Your task to perform on an android device: turn off translation in the chrome app Image 0: 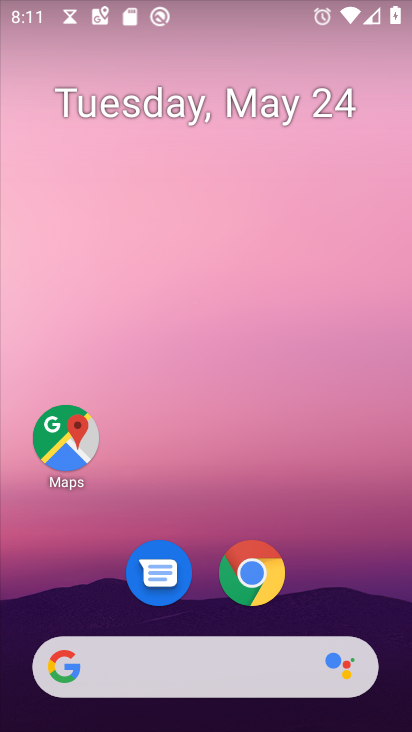
Step 0: drag from (332, 505) to (282, 46)
Your task to perform on an android device: turn off translation in the chrome app Image 1: 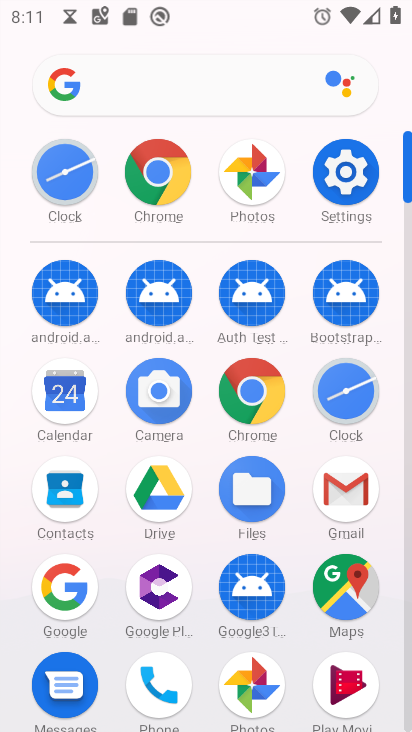
Step 1: click (157, 176)
Your task to perform on an android device: turn off translation in the chrome app Image 2: 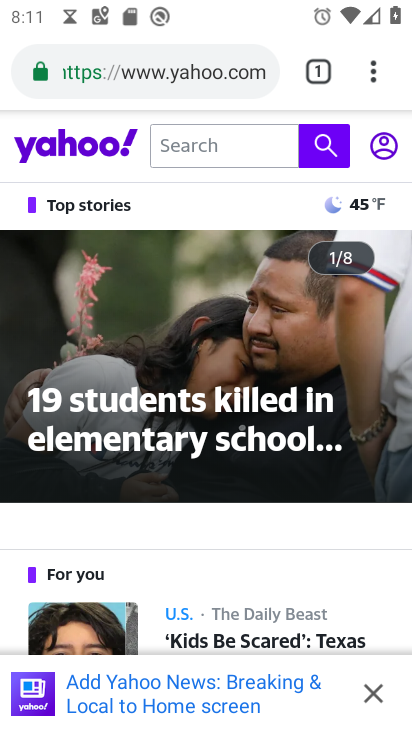
Step 2: drag from (393, 82) to (187, 568)
Your task to perform on an android device: turn off translation in the chrome app Image 3: 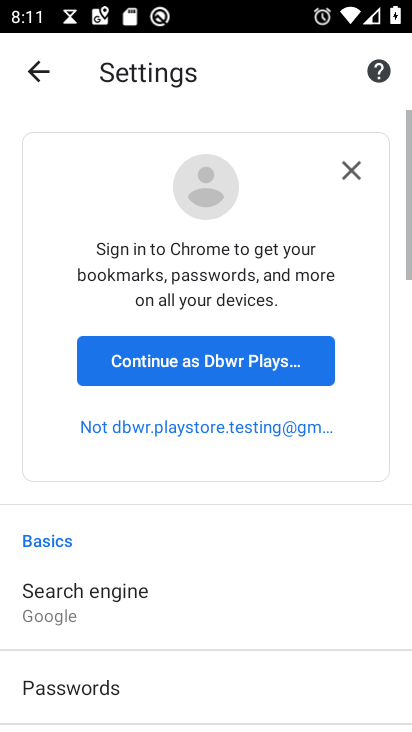
Step 3: drag from (196, 605) to (287, 208)
Your task to perform on an android device: turn off translation in the chrome app Image 4: 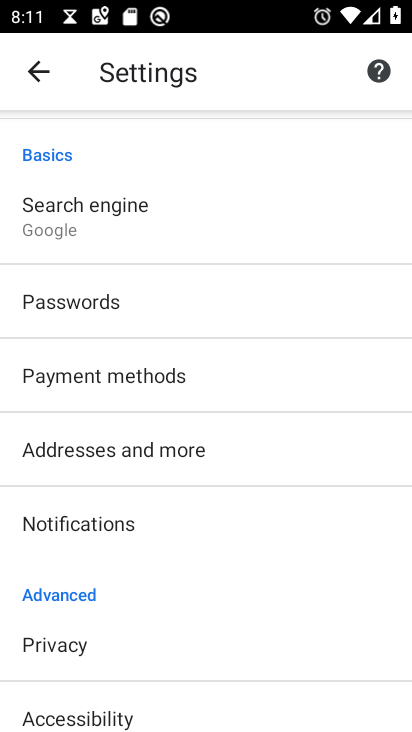
Step 4: drag from (180, 600) to (224, 133)
Your task to perform on an android device: turn off translation in the chrome app Image 5: 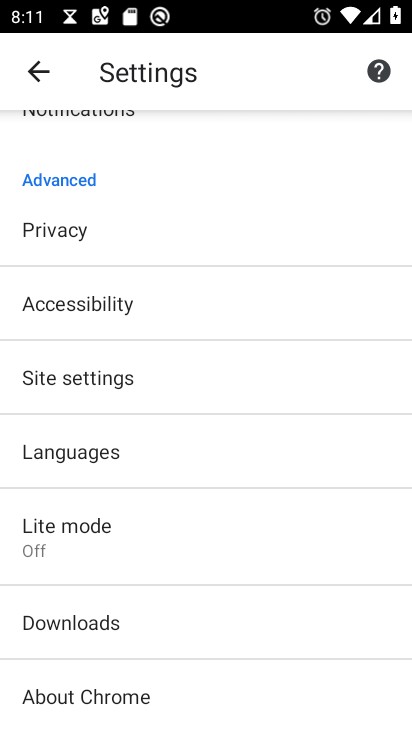
Step 5: click (173, 468)
Your task to perform on an android device: turn off translation in the chrome app Image 6: 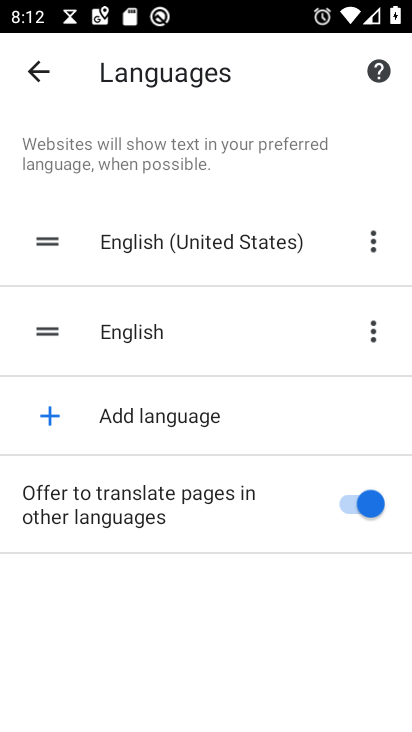
Step 6: click (351, 507)
Your task to perform on an android device: turn off translation in the chrome app Image 7: 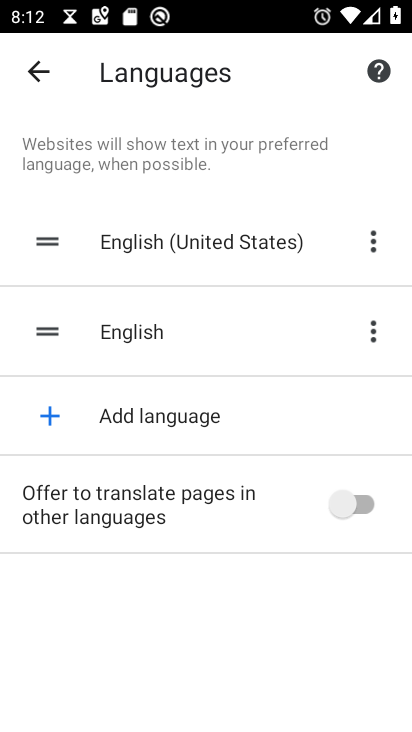
Step 7: task complete